Your task to perform on an android device: change notification settings in the gmail app Image 0: 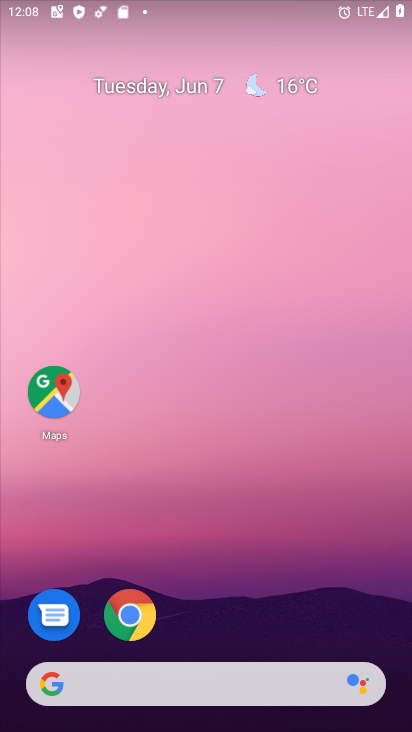
Step 0: drag from (218, 637) to (227, 127)
Your task to perform on an android device: change notification settings in the gmail app Image 1: 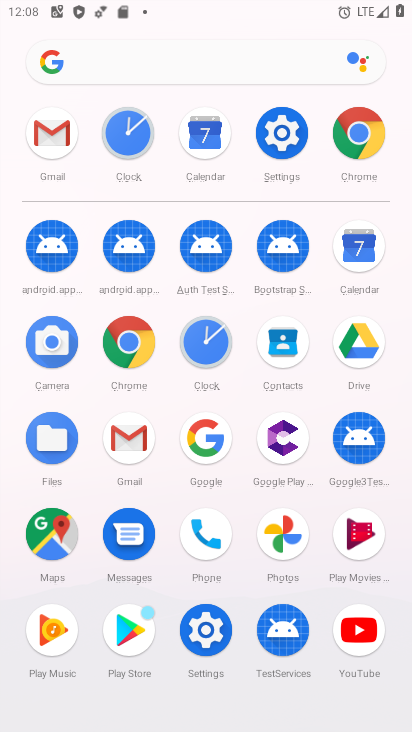
Step 1: click (119, 427)
Your task to perform on an android device: change notification settings in the gmail app Image 2: 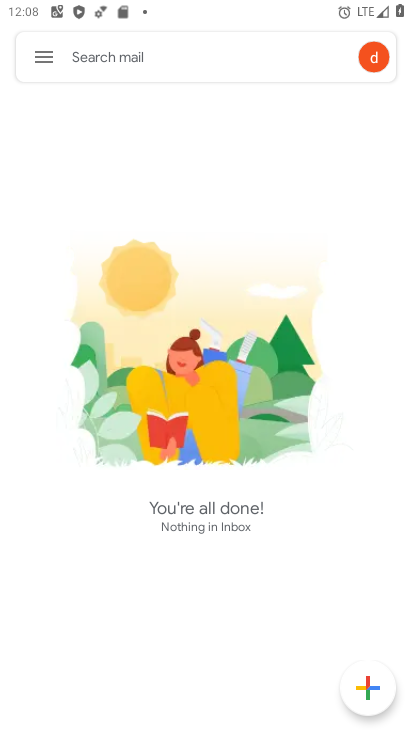
Step 2: click (39, 49)
Your task to perform on an android device: change notification settings in the gmail app Image 3: 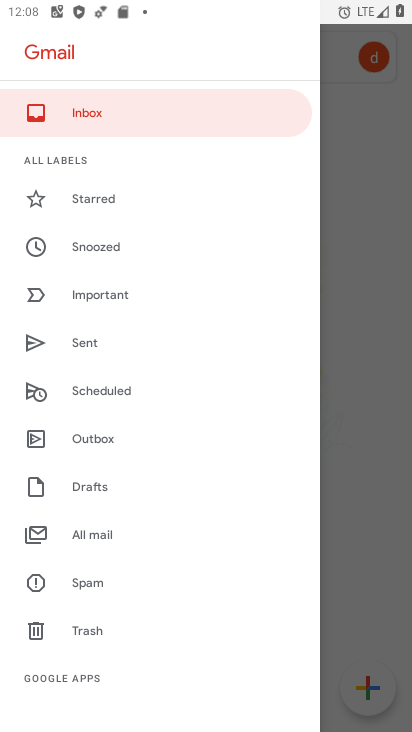
Step 3: drag from (132, 642) to (120, 195)
Your task to perform on an android device: change notification settings in the gmail app Image 4: 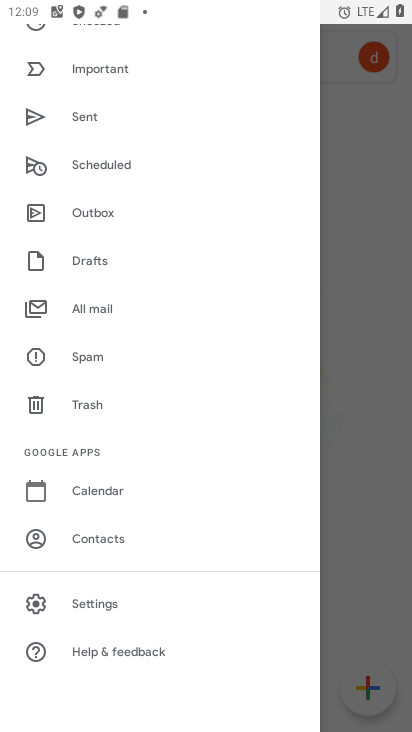
Step 4: click (131, 597)
Your task to perform on an android device: change notification settings in the gmail app Image 5: 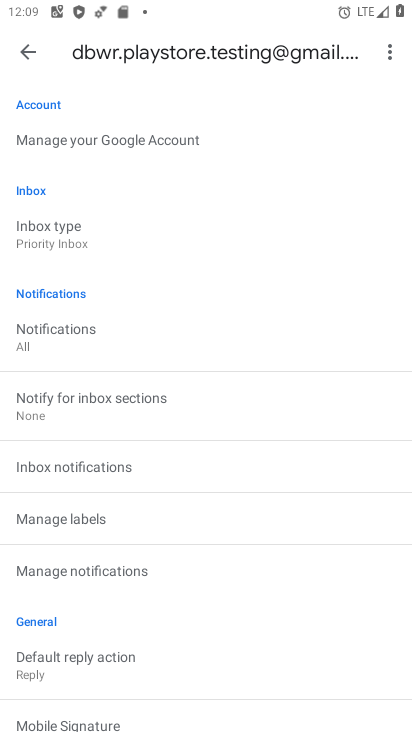
Step 5: click (21, 51)
Your task to perform on an android device: change notification settings in the gmail app Image 6: 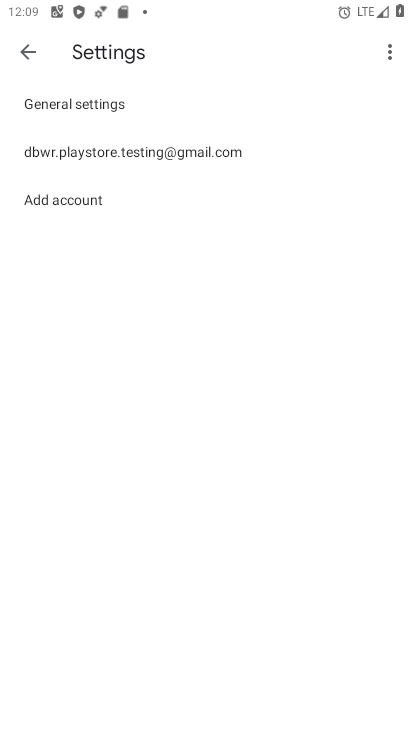
Step 6: click (132, 102)
Your task to perform on an android device: change notification settings in the gmail app Image 7: 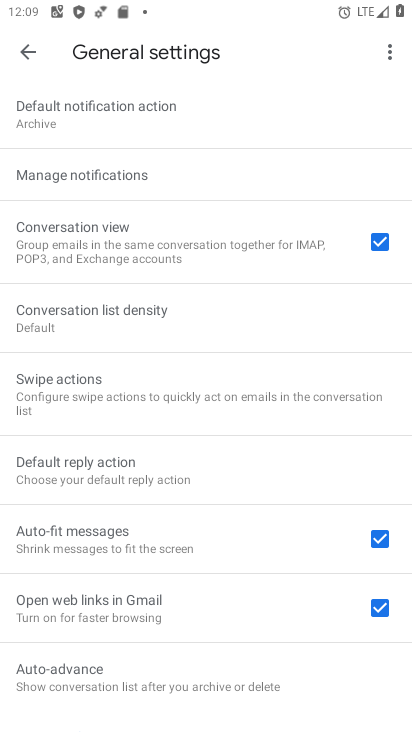
Step 7: click (166, 178)
Your task to perform on an android device: change notification settings in the gmail app Image 8: 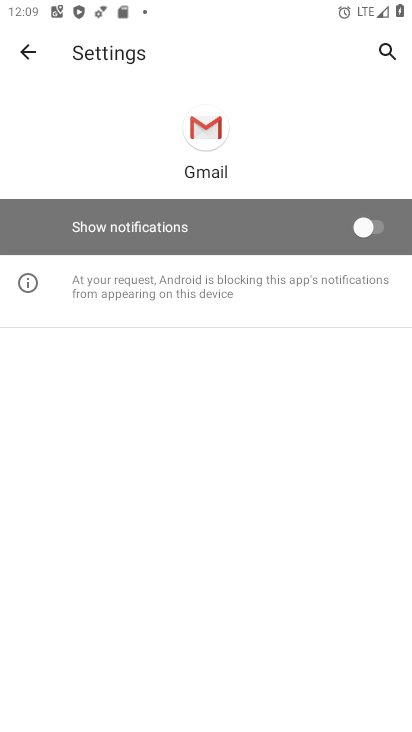
Step 8: click (373, 228)
Your task to perform on an android device: change notification settings in the gmail app Image 9: 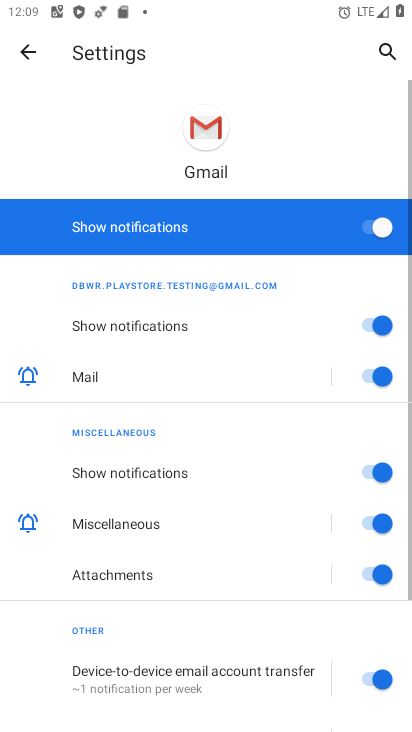
Step 9: task complete